Your task to perform on an android device: Check the weather Image 0: 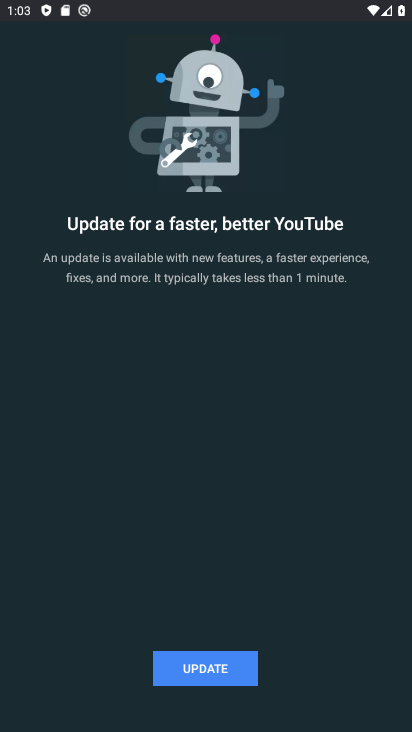
Step 0: drag from (132, 649) to (133, 342)
Your task to perform on an android device: Check the weather Image 1: 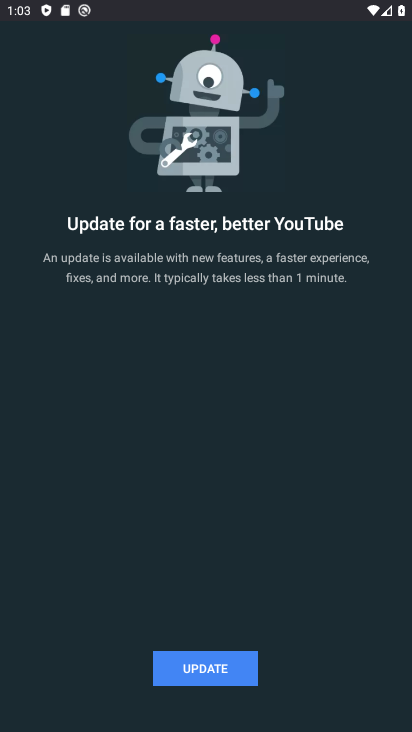
Step 1: press back button
Your task to perform on an android device: Check the weather Image 2: 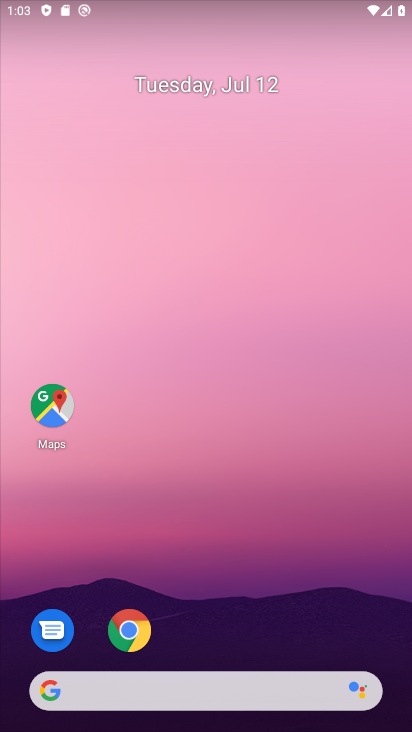
Step 2: click (240, 681)
Your task to perform on an android device: Check the weather Image 3: 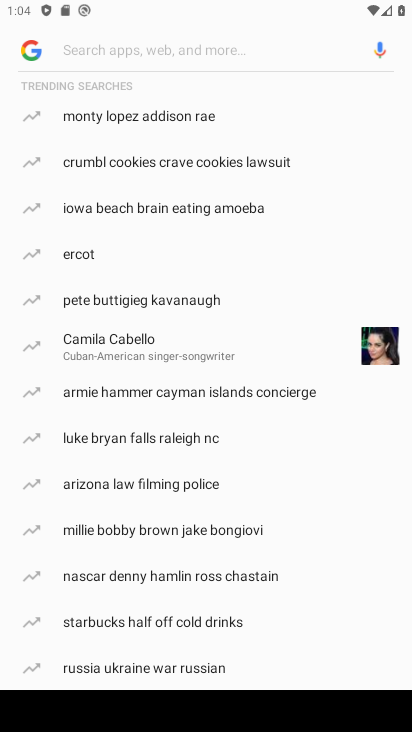
Step 3: type "weather"
Your task to perform on an android device: Check the weather Image 4: 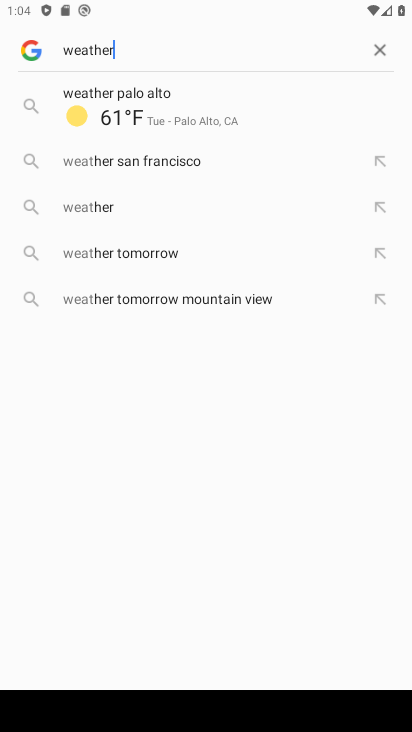
Step 4: type ""
Your task to perform on an android device: Check the weather Image 5: 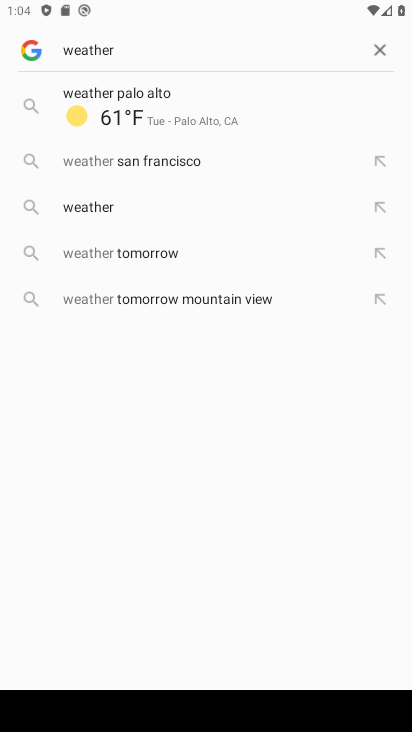
Step 5: click (201, 115)
Your task to perform on an android device: Check the weather Image 6: 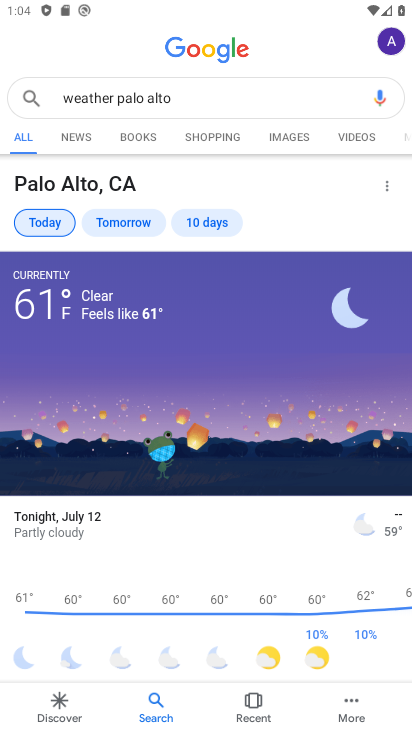
Step 6: task complete